Your task to perform on an android device: Go to location settings Image 0: 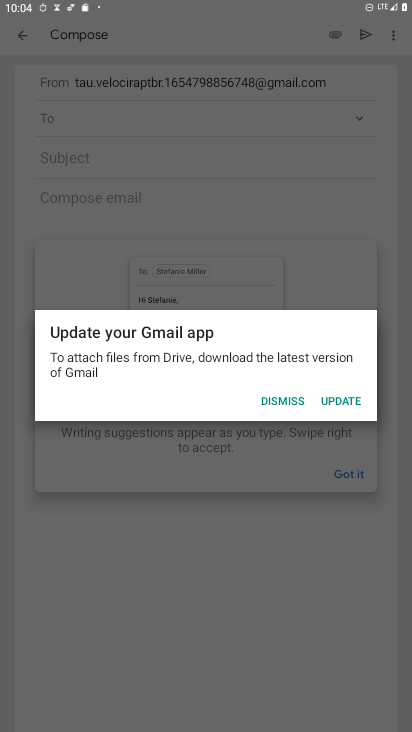
Step 0: press home button
Your task to perform on an android device: Go to location settings Image 1: 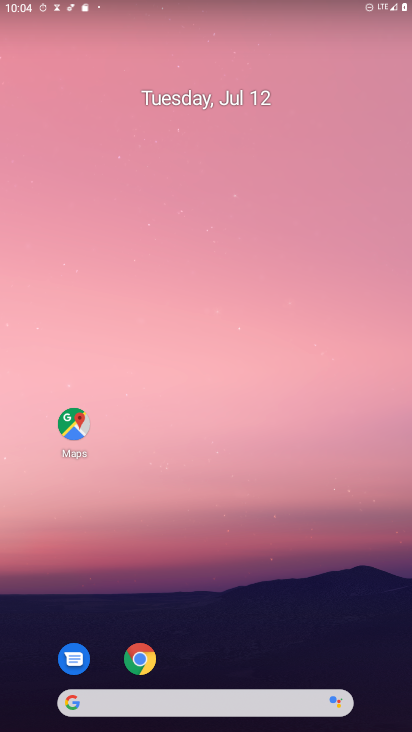
Step 1: drag from (177, 708) to (151, 262)
Your task to perform on an android device: Go to location settings Image 2: 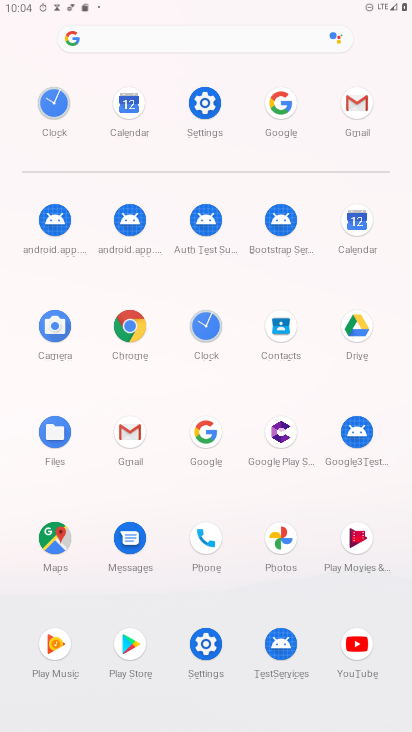
Step 2: click (204, 104)
Your task to perform on an android device: Go to location settings Image 3: 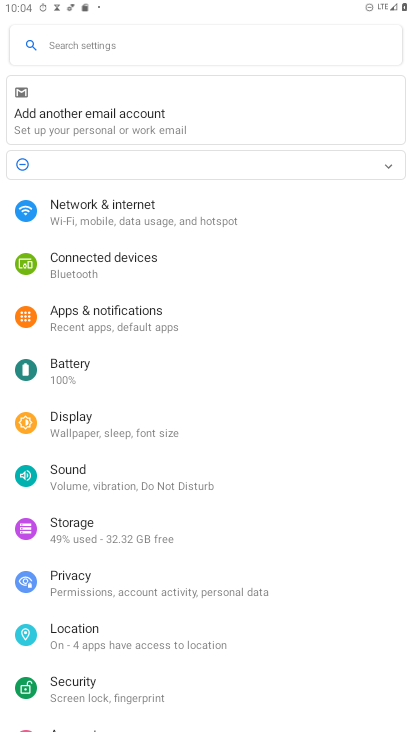
Step 3: click (72, 634)
Your task to perform on an android device: Go to location settings Image 4: 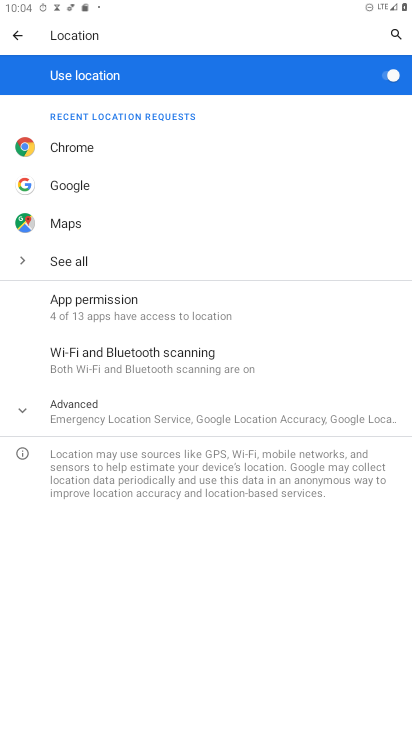
Step 4: task complete